Your task to perform on an android device: turn on wifi Image 0: 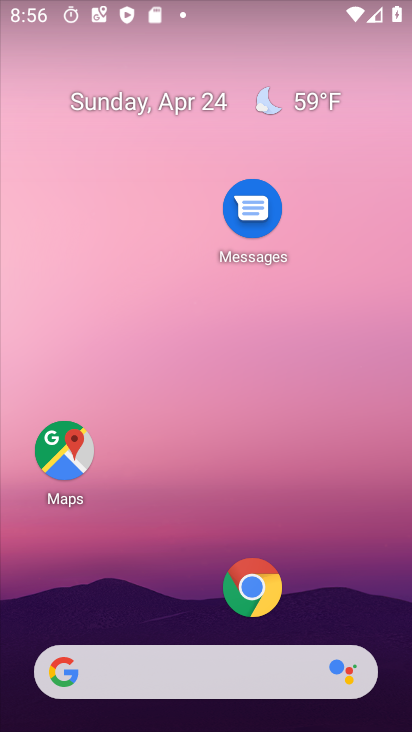
Step 0: drag from (184, 604) to (252, 16)
Your task to perform on an android device: turn on wifi Image 1: 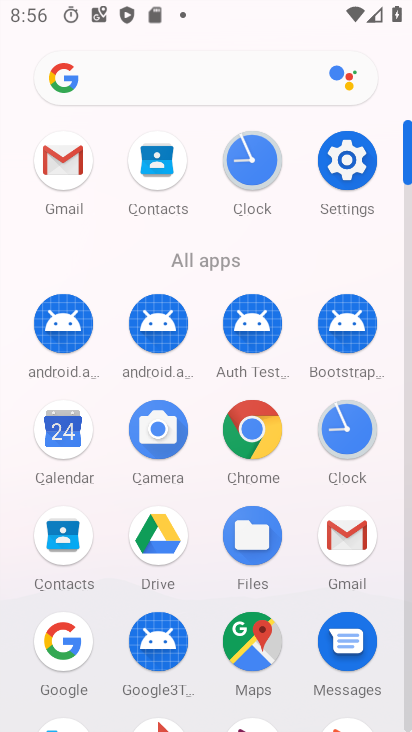
Step 1: click (361, 164)
Your task to perform on an android device: turn on wifi Image 2: 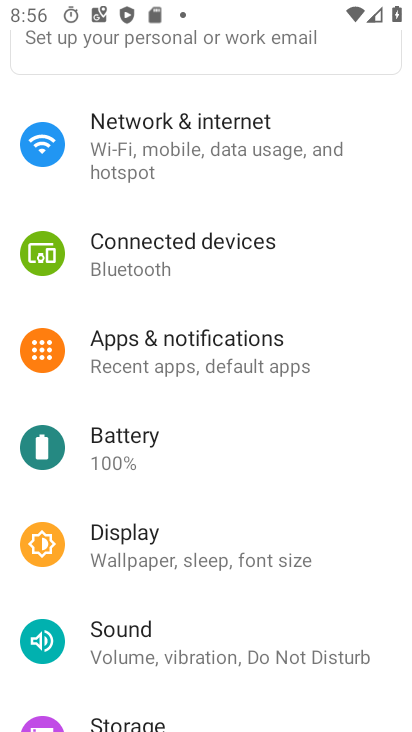
Step 2: click (206, 161)
Your task to perform on an android device: turn on wifi Image 3: 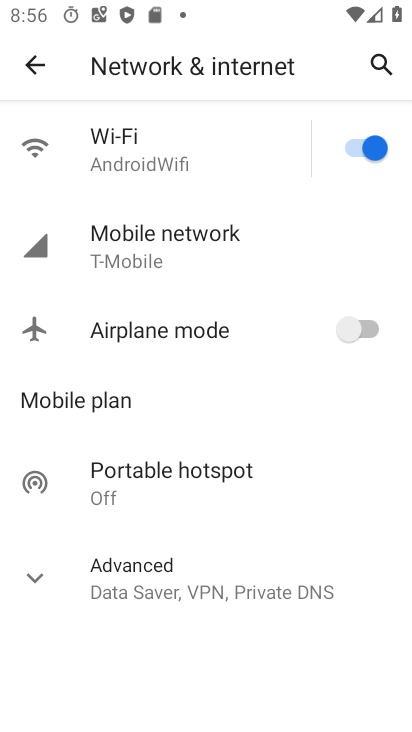
Step 3: task complete